Your task to perform on an android device: check the backup settings in the google photos Image 0: 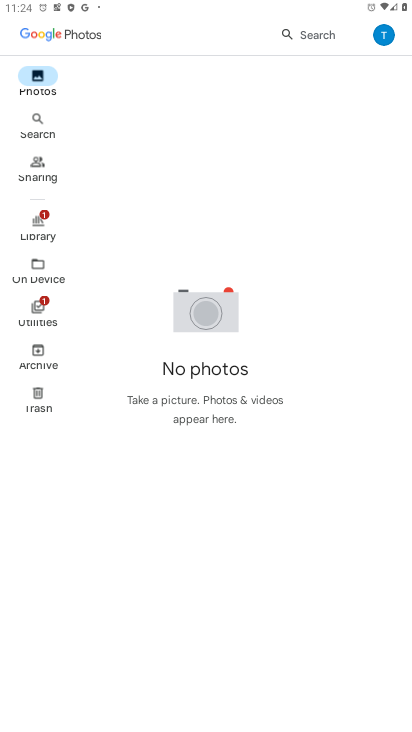
Step 0: press home button
Your task to perform on an android device: check the backup settings in the google photos Image 1: 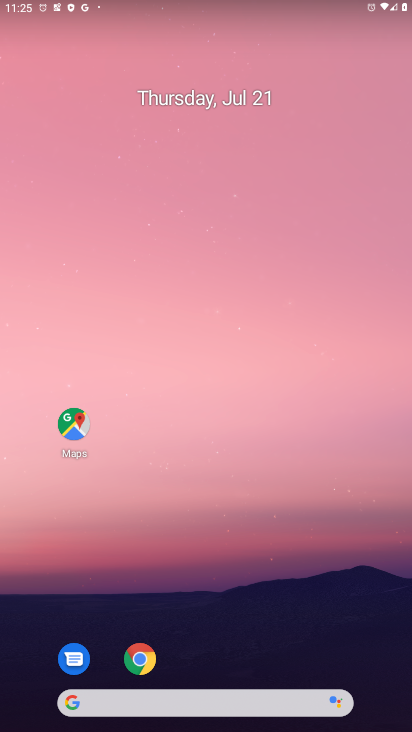
Step 1: drag from (202, 705) to (76, 208)
Your task to perform on an android device: check the backup settings in the google photos Image 2: 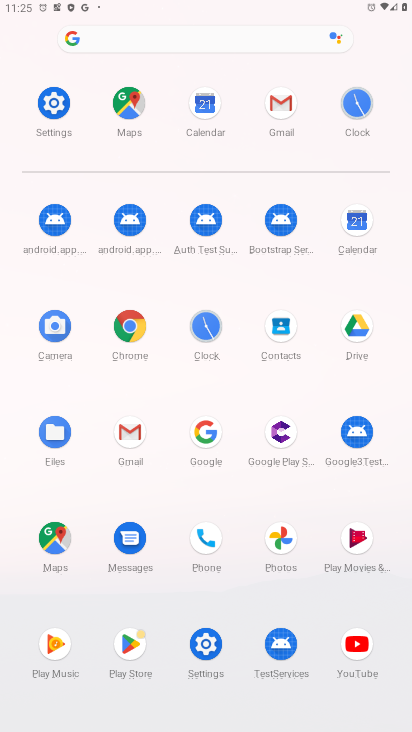
Step 2: click (281, 537)
Your task to perform on an android device: check the backup settings in the google photos Image 3: 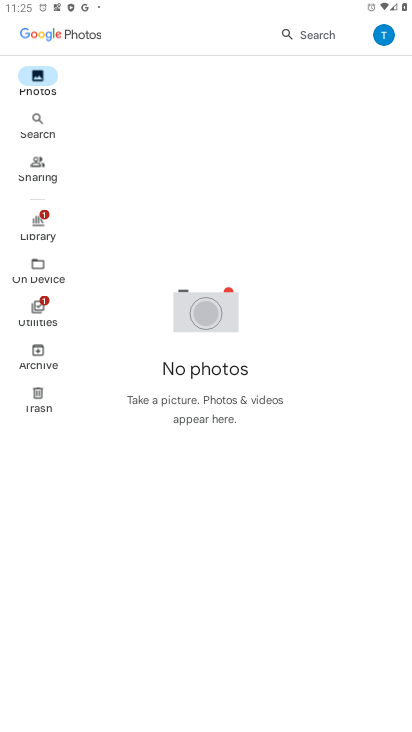
Step 3: click (385, 37)
Your task to perform on an android device: check the backup settings in the google photos Image 4: 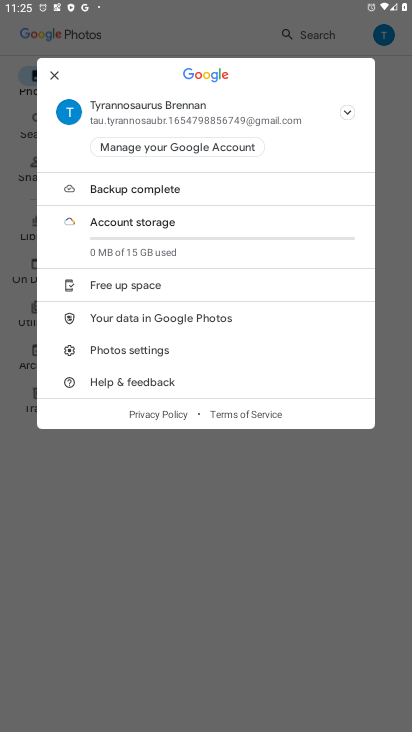
Step 4: click (129, 347)
Your task to perform on an android device: check the backup settings in the google photos Image 5: 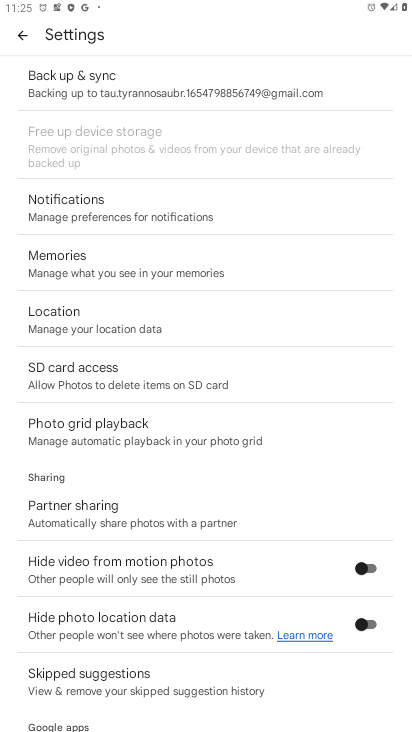
Step 5: click (202, 91)
Your task to perform on an android device: check the backup settings in the google photos Image 6: 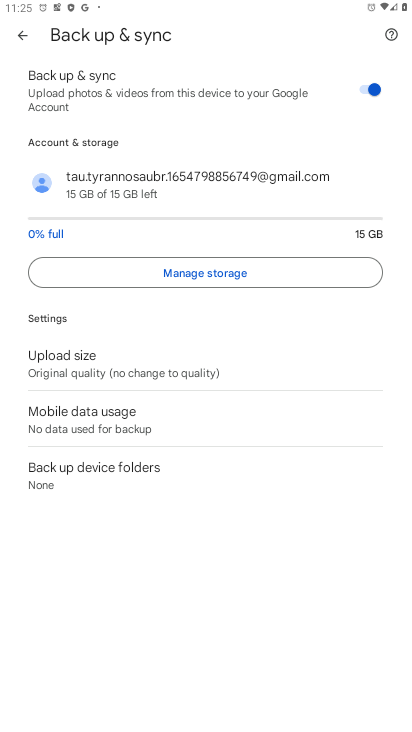
Step 6: task complete